Your task to perform on an android device: open app "Google Find My Device" Image 0: 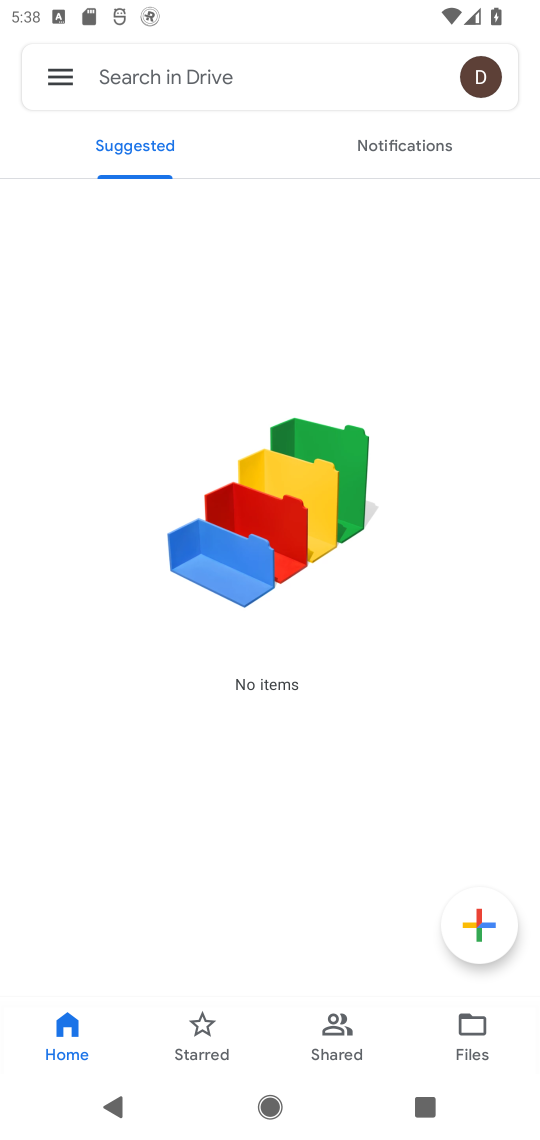
Step 0: press back button
Your task to perform on an android device: open app "Google Find My Device" Image 1: 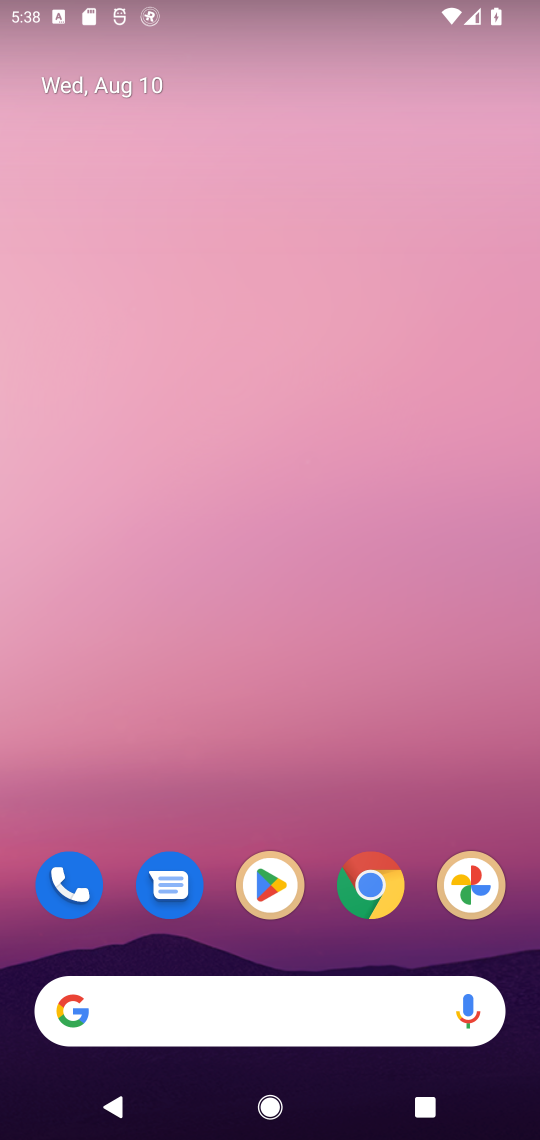
Step 1: click (256, 895)
Your task to perform on an android device: open app "Google Find My Device" Image 2: 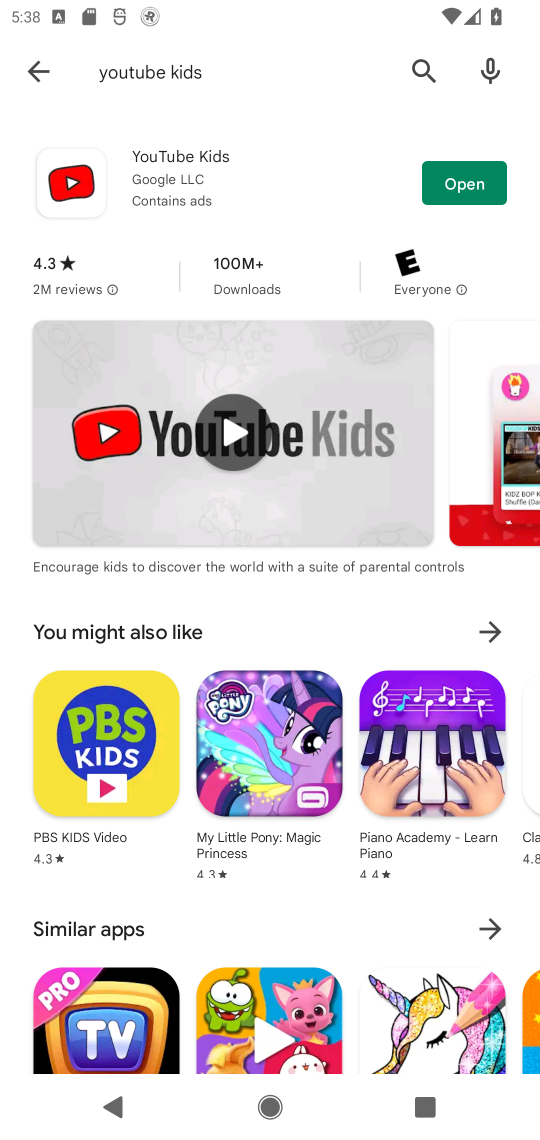
Step 2: click (426, 63)
Your task to perform on an android device: open app "Google Find My Device" Image 3: 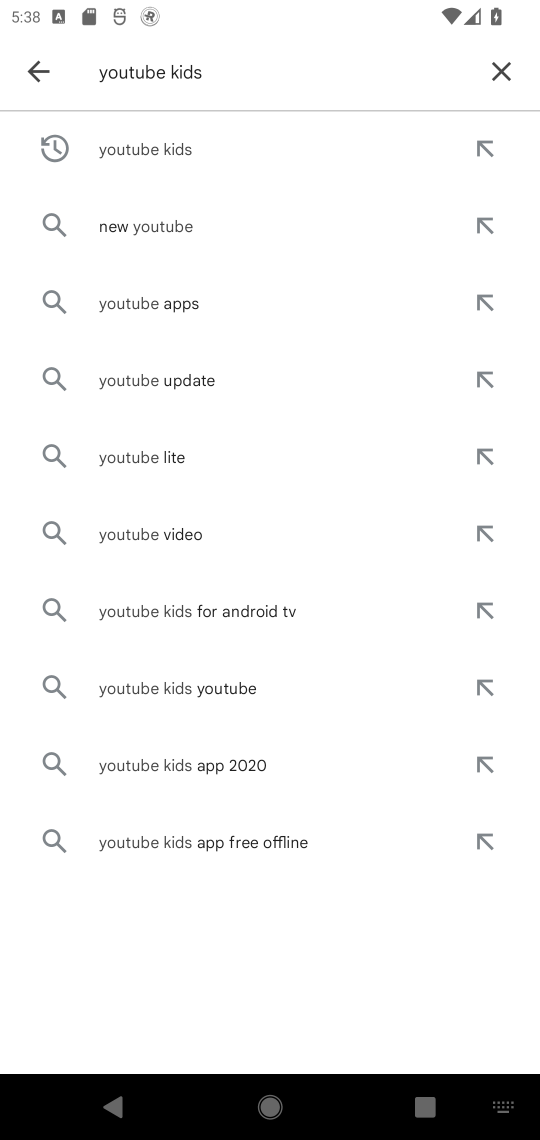
Step 3: click (504, 60)
Your task to perform on an android device: open app "Google Find My Device" Image 4: 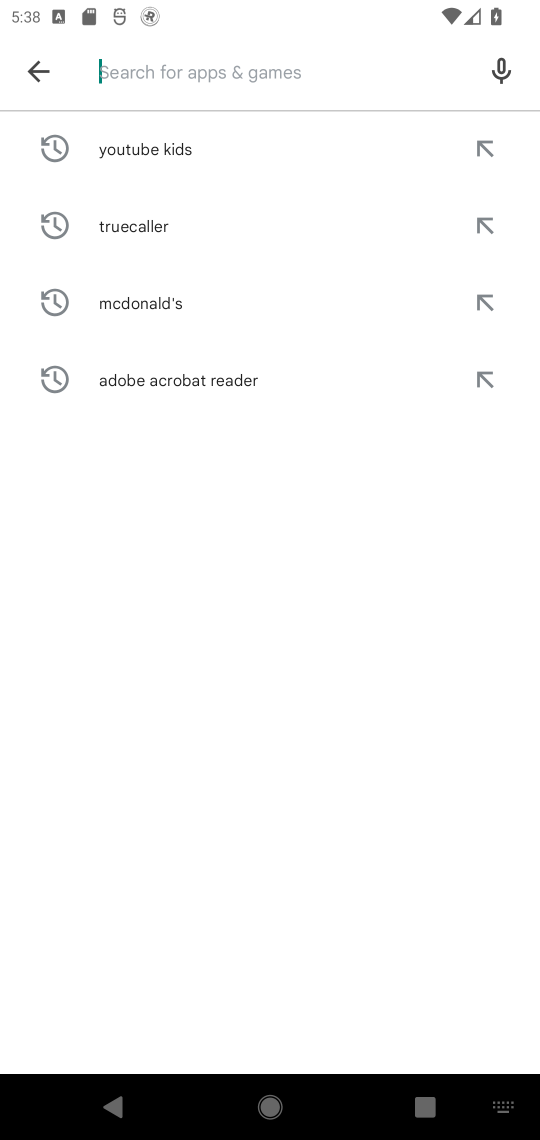
Step 4: click (147, 63)
Your task to perform on an android device: open app "Google Find My Device" Image 5: 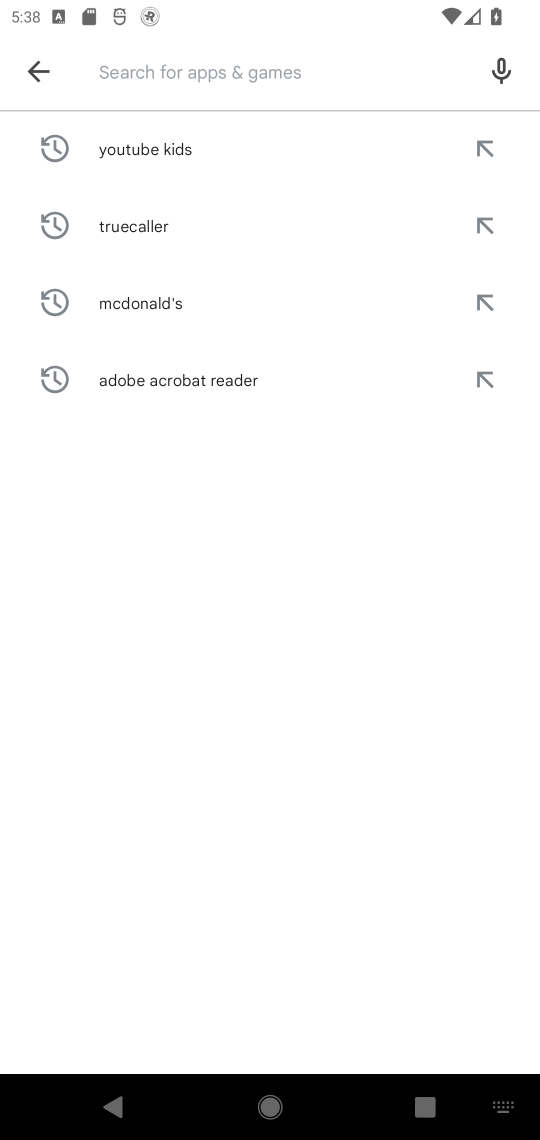
Step 5: type "Google Find My Device"
Your task to perform on an android device: open app "Google Find My Device" Image 6: 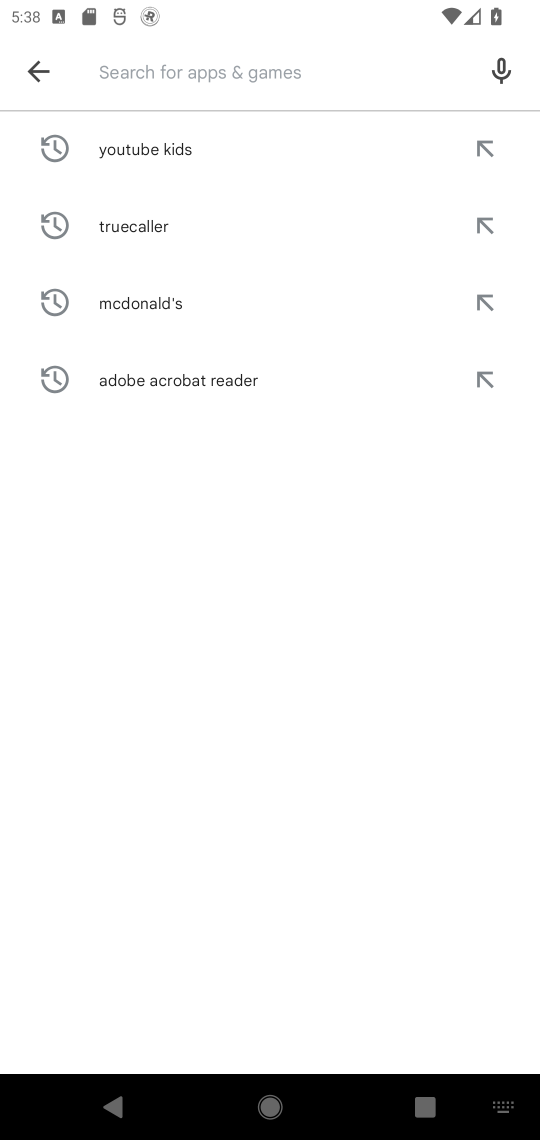
Step 6: click (298, 633)
Your task to perform on an android device: open app "Google Find My Device" Image 7: 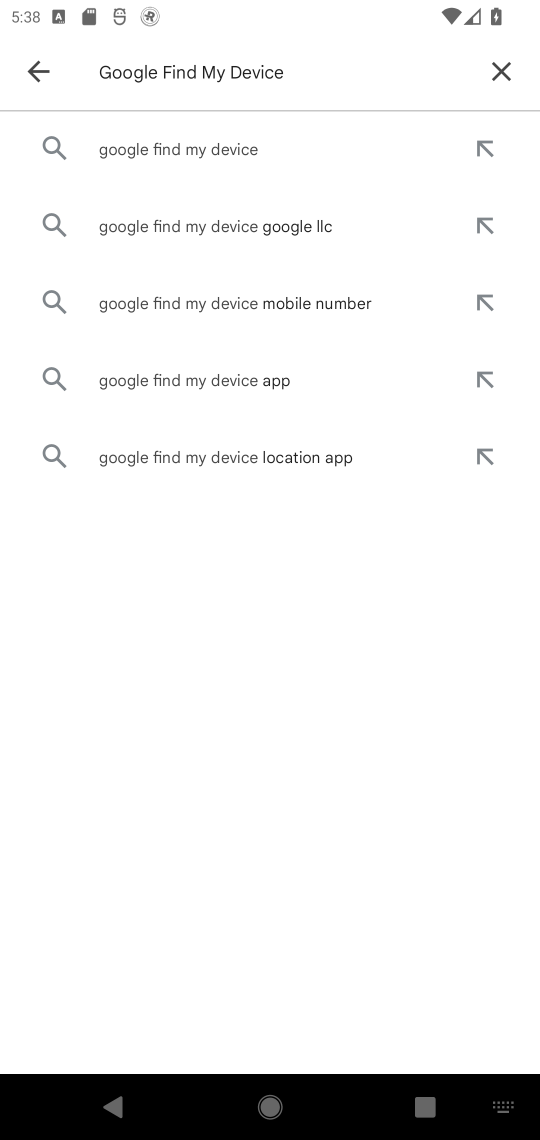
Step 7: click (196, 142)
Your task to perform on an android device: open app "Google Find My Device" Image 8: 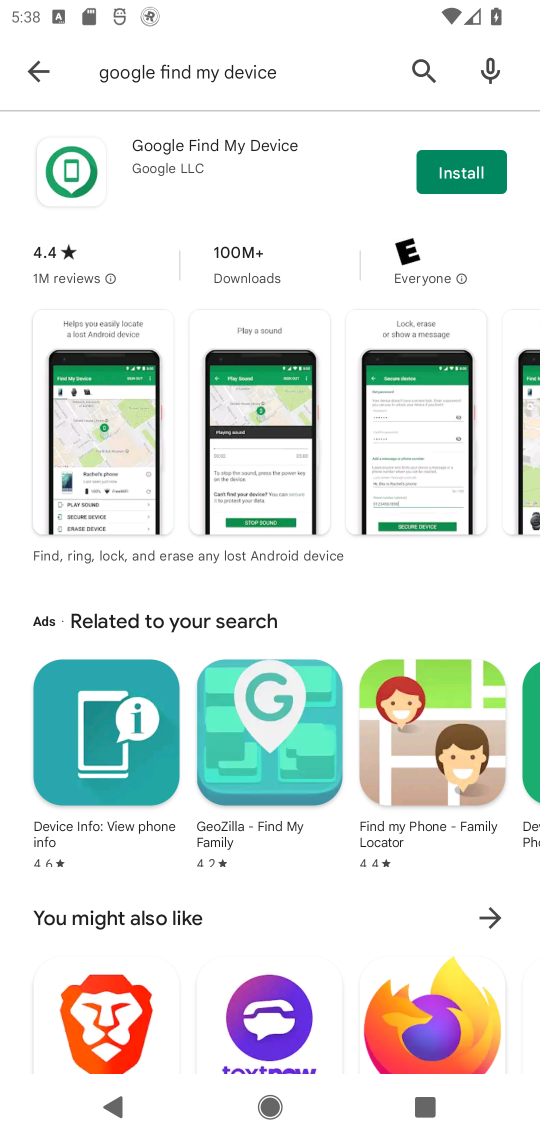
Step 8: task complete